Your task to perform on an android device: set an alarm Image 0: 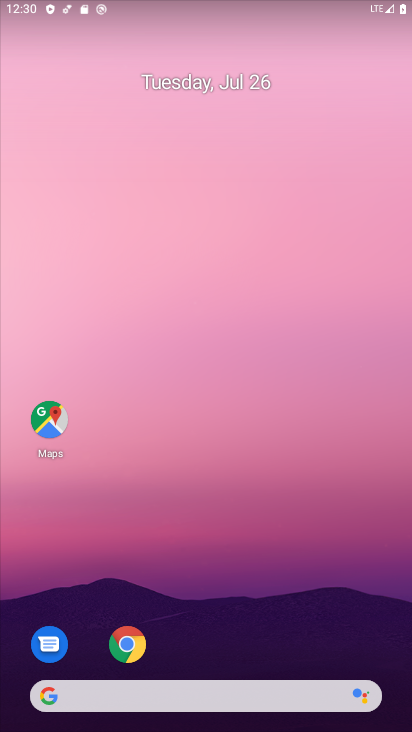
Step 0: drag from (110, 721) to (279, 79)
Your task to perform on an android device: set an alarm Image 1: 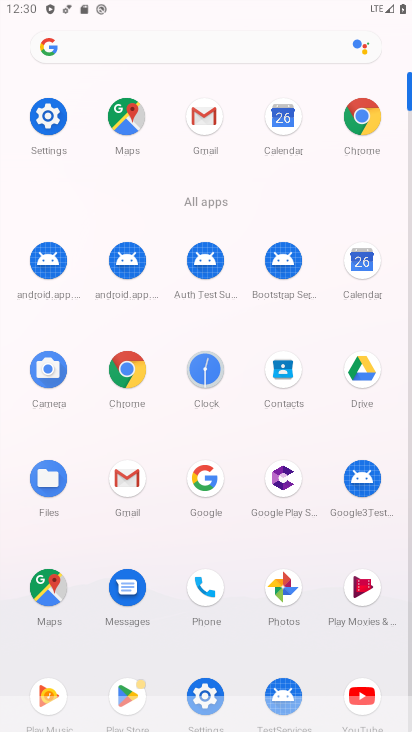
Step 1: click (207, 373)
Your task to perform on an android device: set an alarm Image 2: 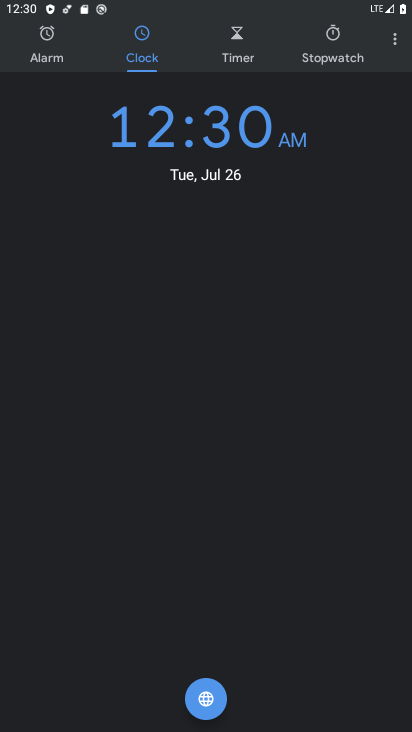
Step 2: click (52, 37)
Your task to perform on an android device: set an alarm Image 3: 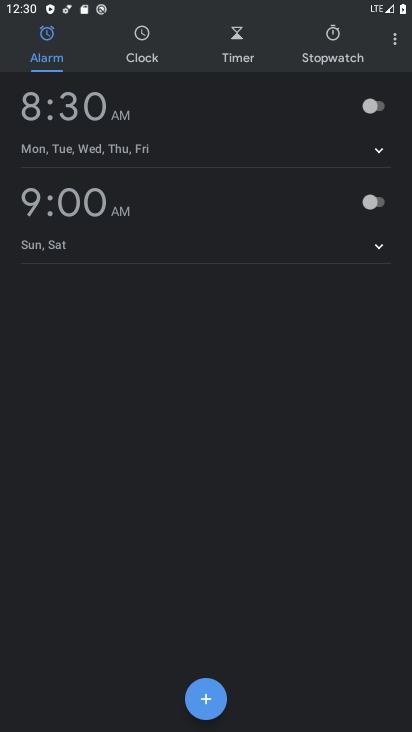
Step 3: click (206, 690)
Your task to perform on an android device: set an alarm Image 4: 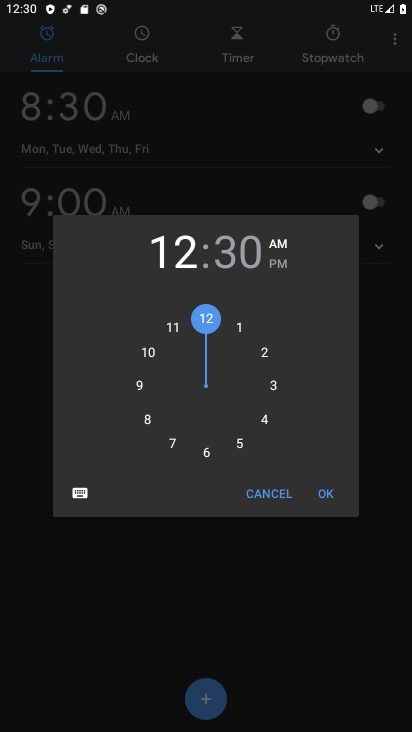
Step 4: click (317, 492)
Your task to perform on an android device: set an alarm Image 5: 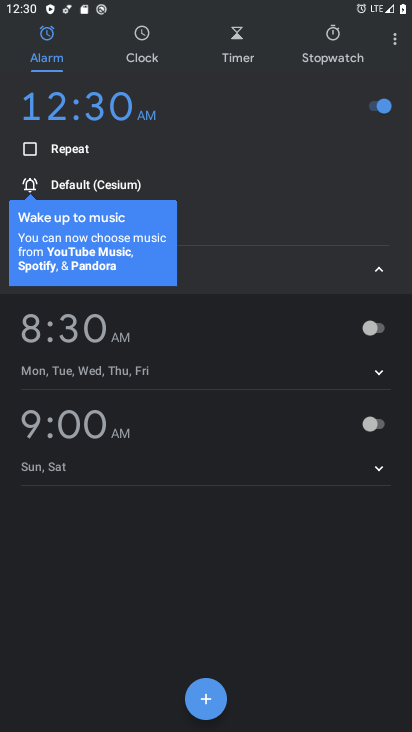
Step 5: task complete